Your task to perform on an android device: change timer sound Image 0: 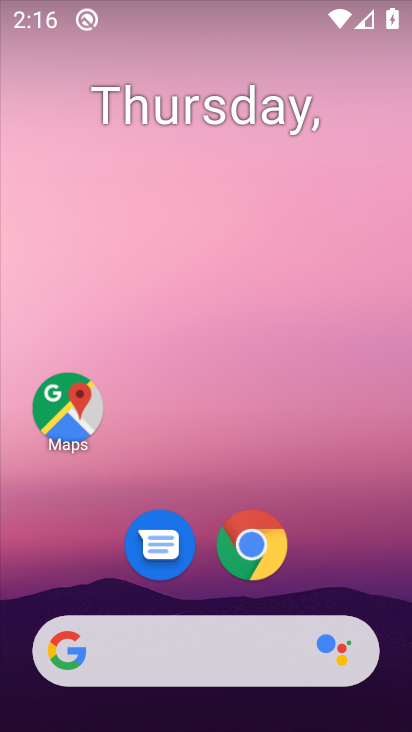
Step 0: drag from (183, 624) to (280, 55)
Your task to perform on an android device: change timer sound Image 1: 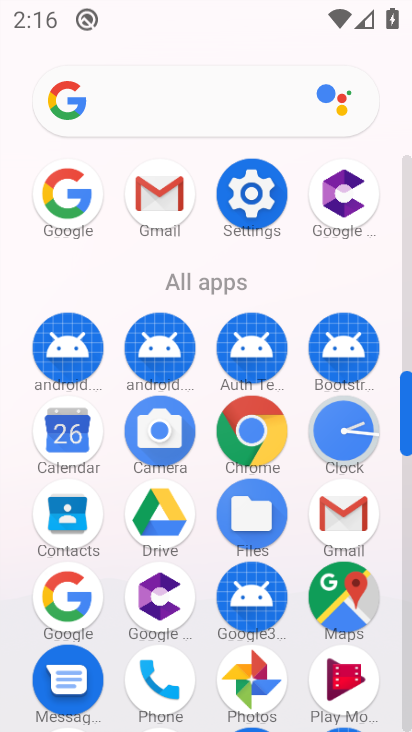
Step 1: click (332, 437)
Your task to perform on an android device: change timer sound Image 2: 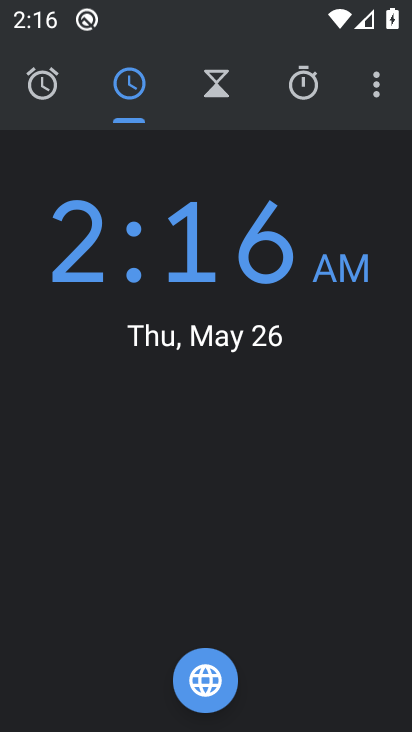
Step 2: click (377, 87)
Your task to perform on an android device: change timer sound Image 3: 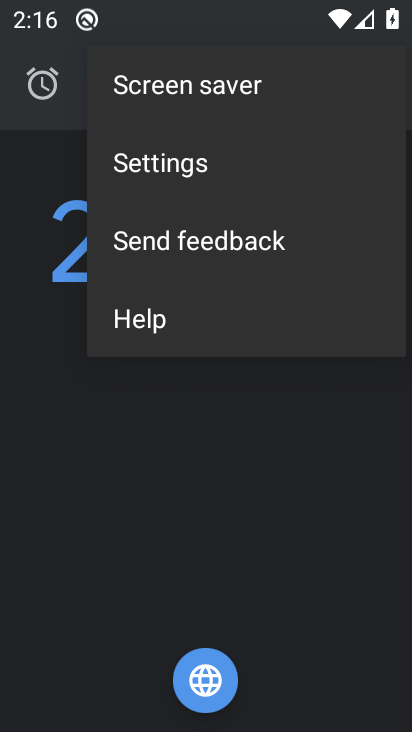
Step 3: click (204, 166)
Your task to perform on an android device: change timer sound Image 4: 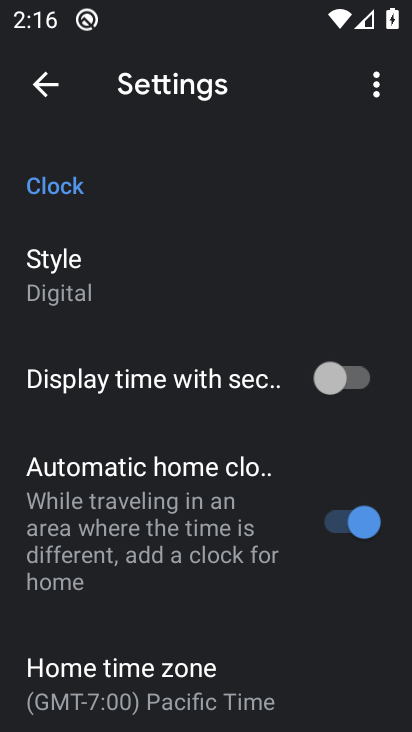
Step 4: drag from (155, 678) to (286, 105)
Your task to perform on an android device: change timer sound Image 5: 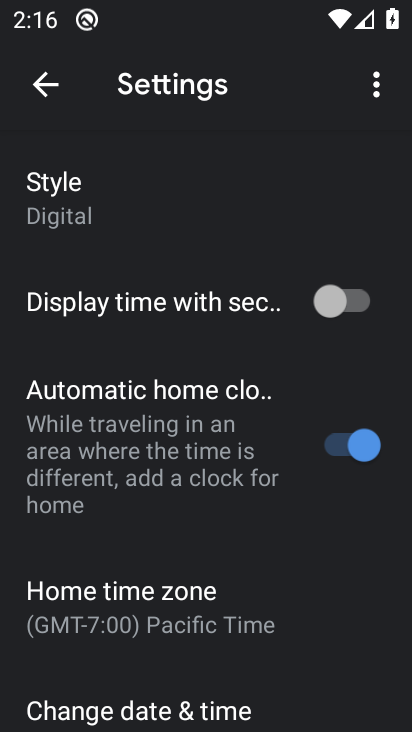
Step 5: drag from (121, 714) to (284, 165)
Your task to perform on an android device: change timer sound Image 6: 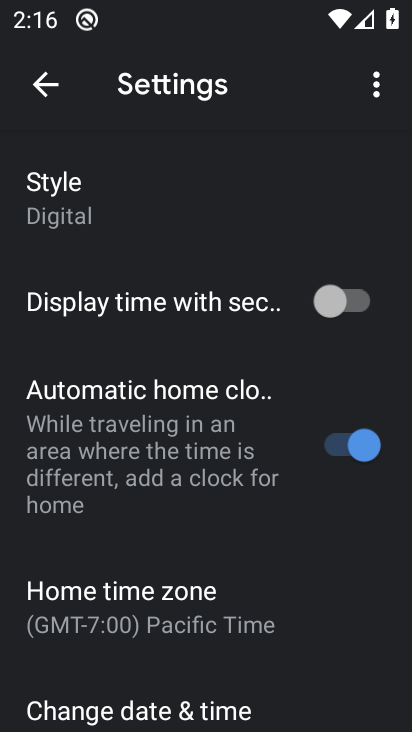
Step 6: drag from (127, 692) to (272, 6)
Your task to perform on an android device: change timer sound Image 7: 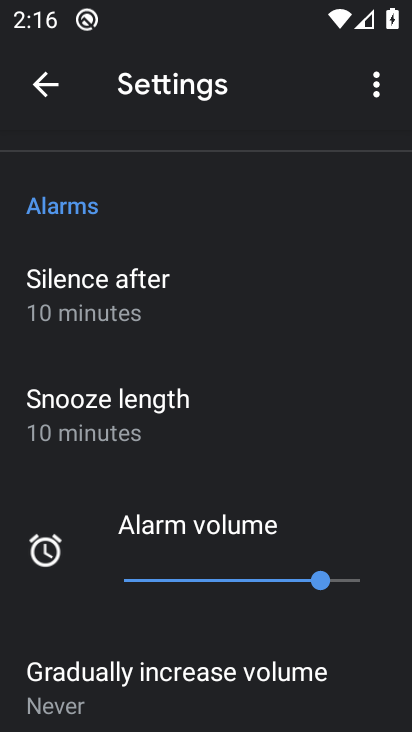
Step 7: drag from (154, 636) to (266, 137)
Your task to perform on an android device: change timer sound Image 8: 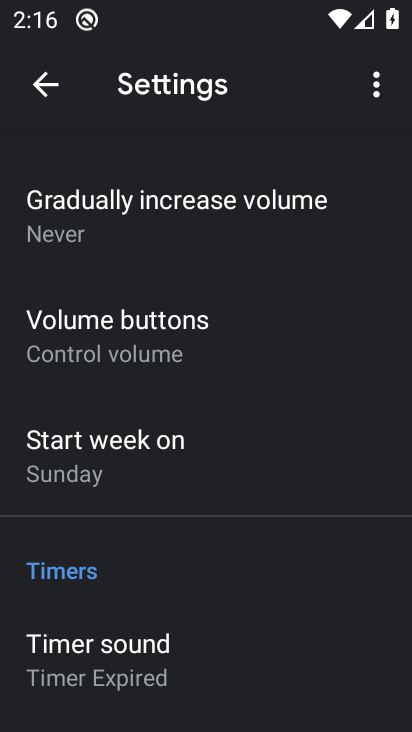
Step 8: click (98, 668)
Your task to perform on an android device: change timer sound Image 9: 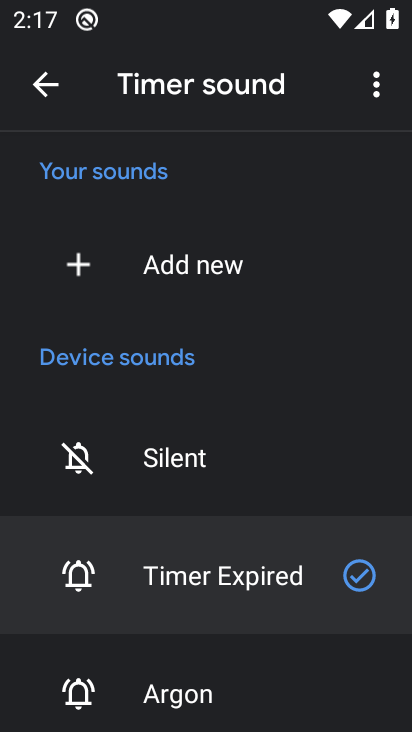
Step 9: click (161, 699)
Your task to perform on an android device: change timer sound Image 10: 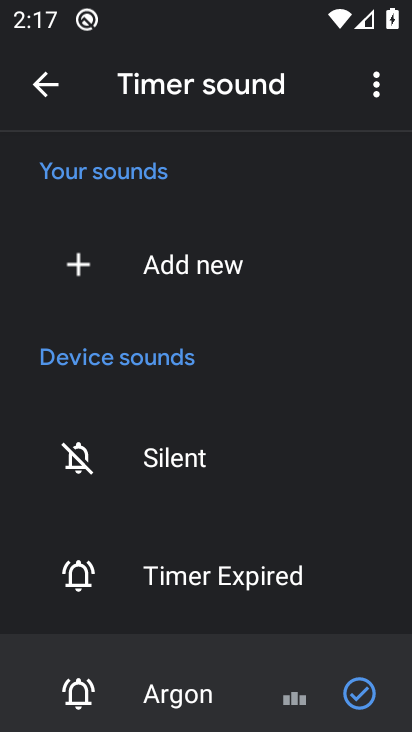
Step 10: task complete